Your task to perform on an android device: See recent photos Image 0: 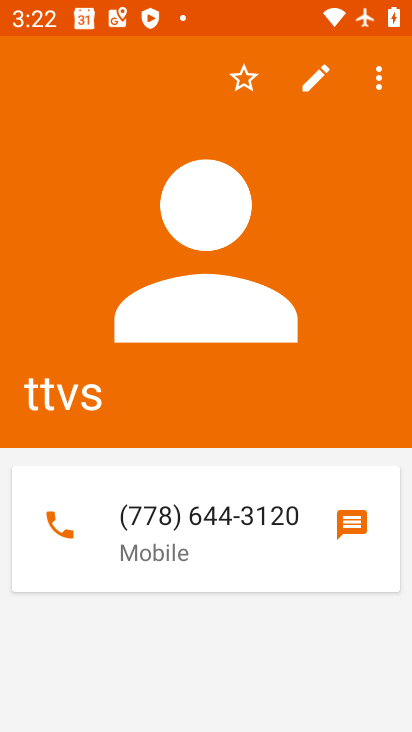
Step 0: press home button
Your task to perform on an android device: See recent photos Image 1: 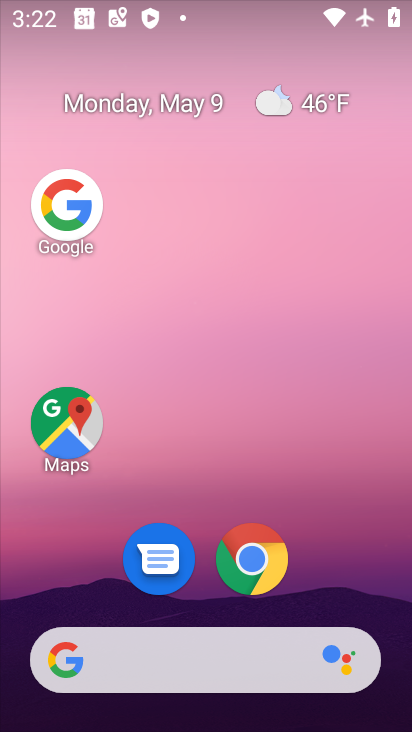
Step 1: drag from (332, 619) to (316, 288)
Your task to perform on an android device: See recent photos Image 2: 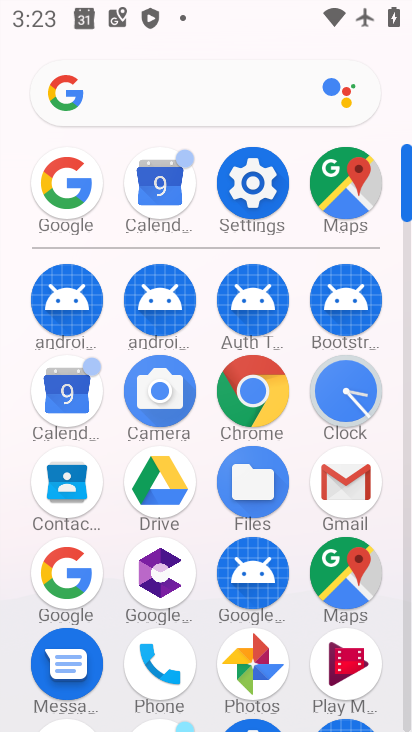
Step 2: click (267, 654)
Your task to perform on an android device: See recent photos Image 3: 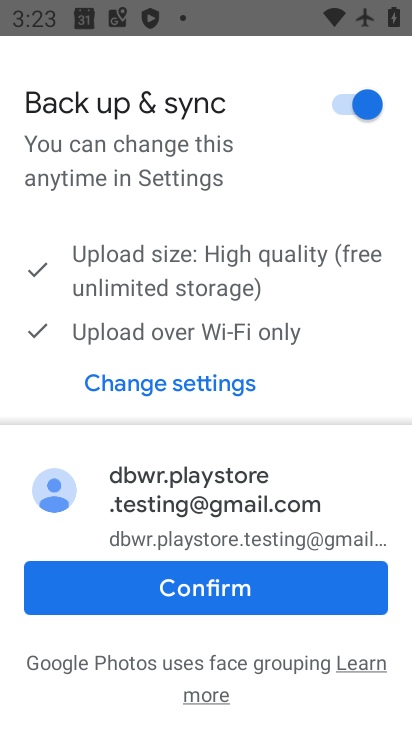
Step 3: click (265, 597)
Your task to perform on an android device: See recent photos Image 4: 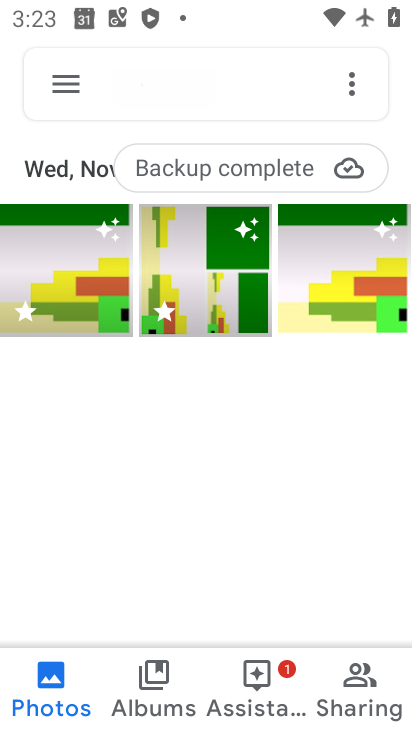
Step 4: click (100, 275)
Your task to perform on an android device: See recent photos Image 5: 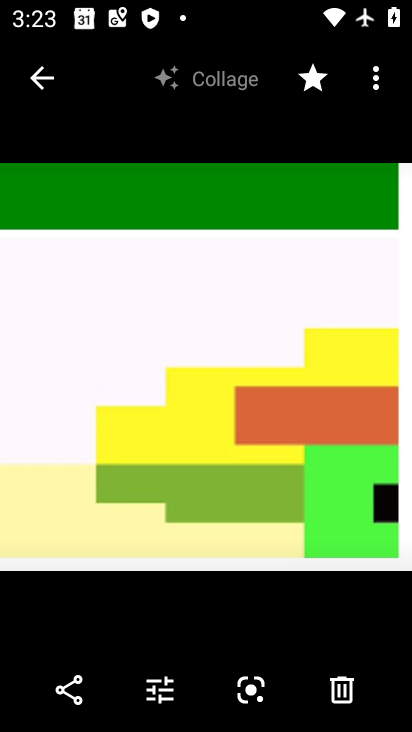
Step 5: task complete